Your task to perform on an android device: Empty the shopping cart on target.com. Search for logitech g pro on target.com, select the first entry, add it to the cart, then select checkout. Image 0: 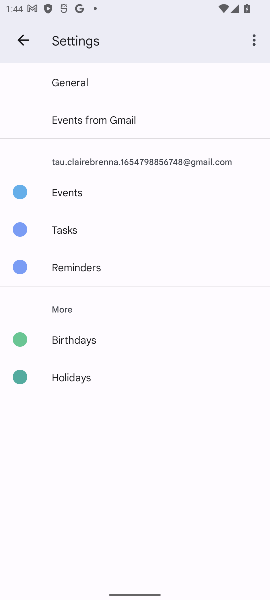
Step 0: press home button
Your task to perform on an android device: Empty the shopping cart on target.com. Search for logitech g pro on target.com, select the first entry, add it to the cart, then select checkout. Image 1: 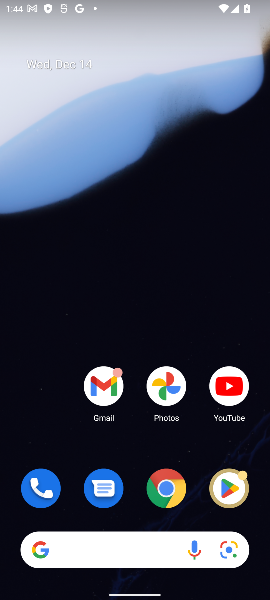
Step 1: drag from (126, 534) to (148, 126)
Your task to perform on an android device: Empty the shopping cart on target.com. Search for logitech g pro on target.com, select the first entry, add it to the cart, then select checkout. Image 2: 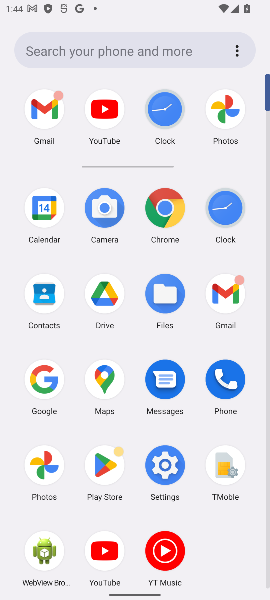
Step 2: click (39, 376)
Your task to perform on an android device: Empty the shopping cart on target.com. Search for logitech g pro on target.com, select the first entry, add it to the cart, then select checkout. Image 3: 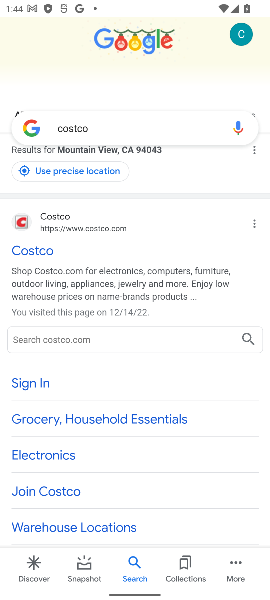
Step 3: click (67, 130)
Your task to perform on an android device: Empty the shopping cart on target.com. Search for logitech g pro on target.com, select the first entry, add it to the cart, then select checkout. Image 4: 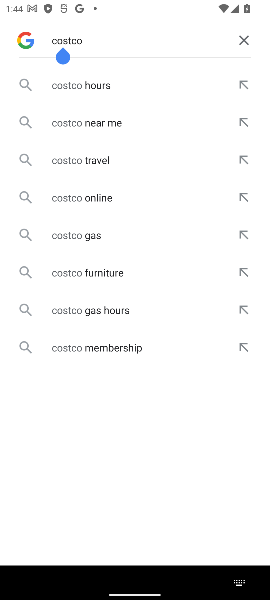
Step 4: click (240, 42)
Your task to perform on an android device: Empty the shopping cart on target.com. Search for logitech g pro on target.com, select the first entry, add it to the cart, then select checkout. Image 5: 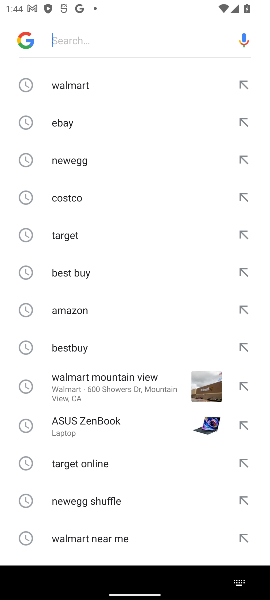
Step 5: click (69, 236)
Your task to perform on an android device: Empty the shopping cart on target.com. Search for logitech g pro on target.com, select the first entry, add it to the cart, then select checkout. Image 6: 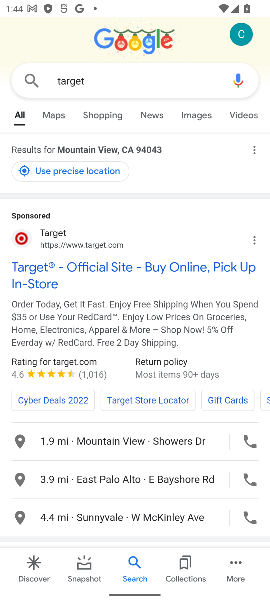
Step 6: click (84, 267)
Your task to perform on an android device: Empty the shopping cart on target.com. Search for logitech g pro on target.com, select the first entry, add it to the cart, then select checkout. Image 7: 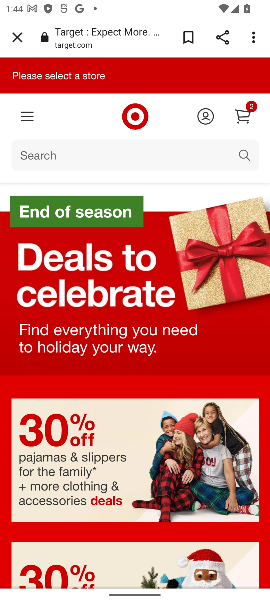
Step 7: click (241, 119)
Your task to perform on an android device: Empty the shopping cart on target.com. Search for logitech g pro on target.com, select the first entry, add it to the cart, then select checkout. Image 8: 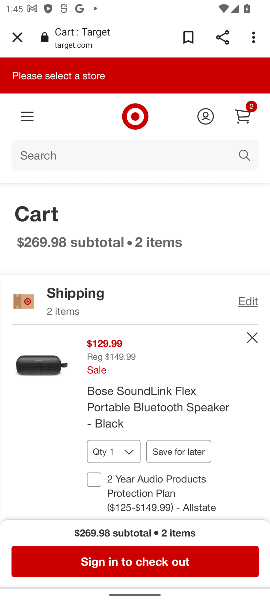
Step 8: drag from (156, 499) to (156, 291)
Your task to perform on an android device: Empty the shopping cart on target.com. Search for logitech g pro on target.com, select the first entry, add it to the cart, then select checkout. Image 9: 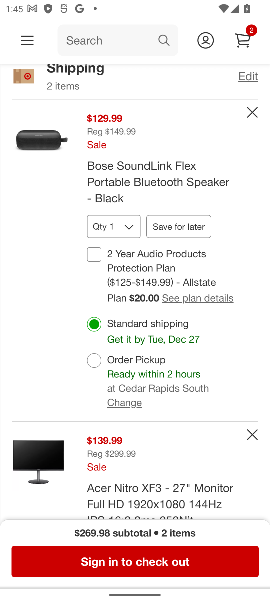
Step 9: click (252, 113)
Your task to perform on an android device: Empty the shopping cart on target.com. Search for logitech g pro on target.com, select the first entry, add it to the cart, then select checkout. Image 10: 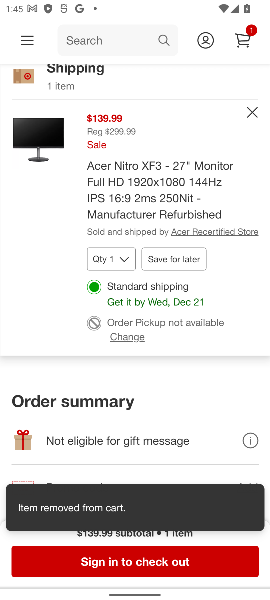
Step 10: click (252, 113)
Your task to perform on an android device: Empty the shopping cart on target.com. Search for logitech g pro on target.com, select the first entry, add it to the cart, then select checkout. Image 11: 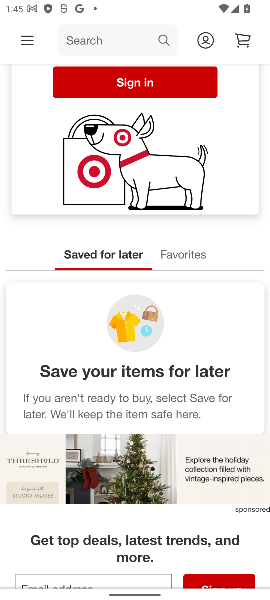
Step 11: click (160, 41)
Your task to perform on an android device: Empty the shopping cart on target.com. Search for logitech g pro on target.com, select the first entry, add it to the cart, then select checkout. Image 12: 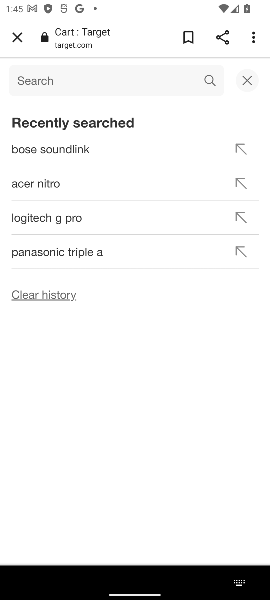
Step 12: type "logitech g pro"
Your task to perform on an android device: Empty the shopping cart on target.com. Search for logitech g pro on target.com, select the first entry, add it to the cart, then select checkout. Image 13: 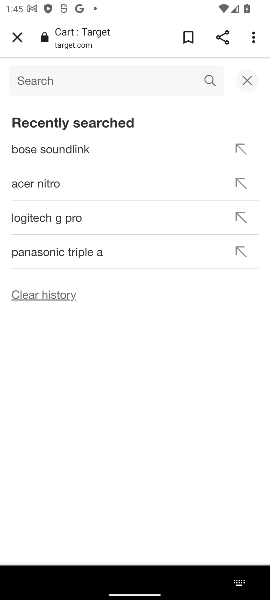
Step 13: click (208, 76)
Your task to perform on an android device: Empty the shopping cart on target.com. Search for logitech g pro on target.com, select the first entry, add it to the cart, then select checkout. Image 14: 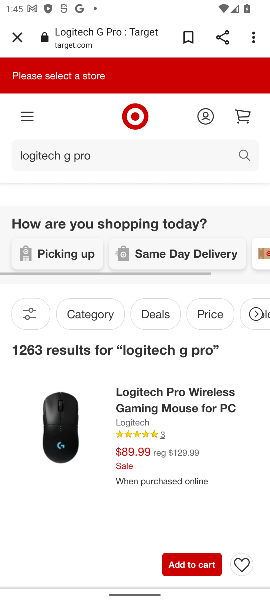
Step 14: click (184, 561)
Your task to perform on an android device: Empty the shopping cart on target.com. Search for logitech g pro on target.com, select the first entry, add it to the cart, then select checkout. Image 15: 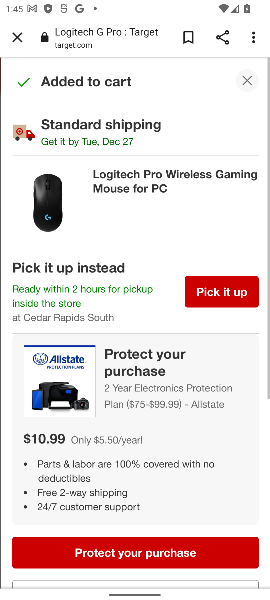
Step 15: task complete